Your task to perform on an android device: Open calendar and show me the fourth week of next month Image 0: 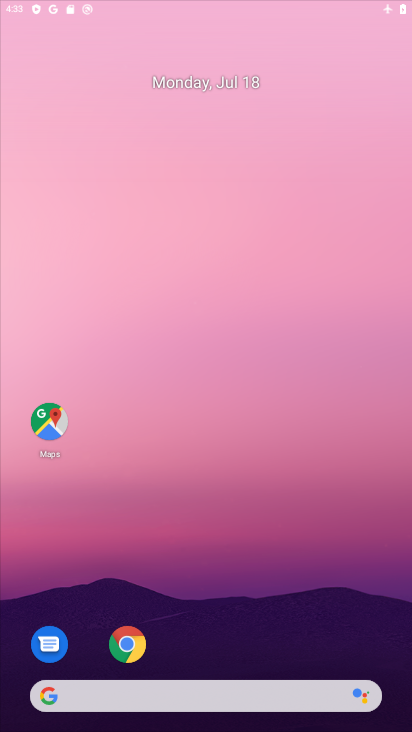
Step 0: press home button
Your task to perform on an android device: Open calendar and show me the fourth week of next month Image 1: 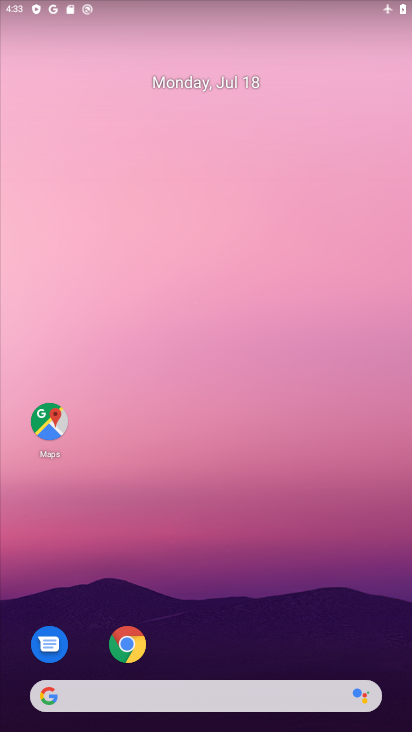
Step 1: drag from (279, 633) to (229, 1)
Your task to perform on an android device: Open calendar and show me the fourth week of next month Image 2: 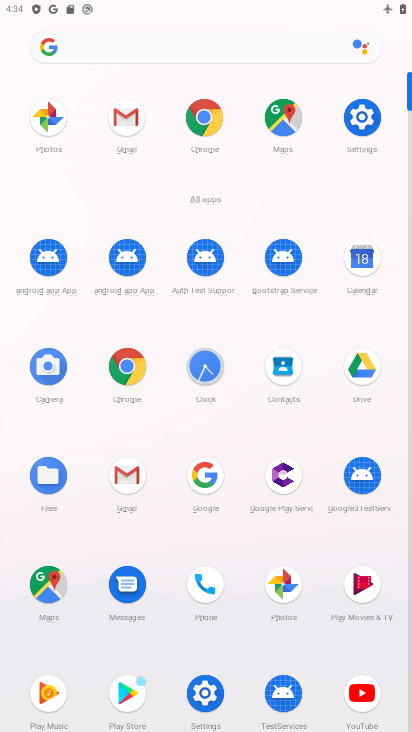
Step 2: click (355, 263)
Your task to perform on an android device: Open calendar and show me the fourth week of next month Image 3: 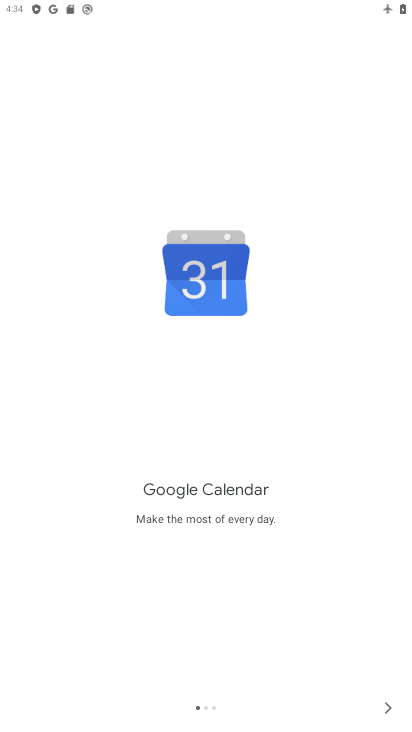
Step 3: click (386, 709)
Your task to perform on an android device: Open calendar and show me the fourth week of next month Image 4: 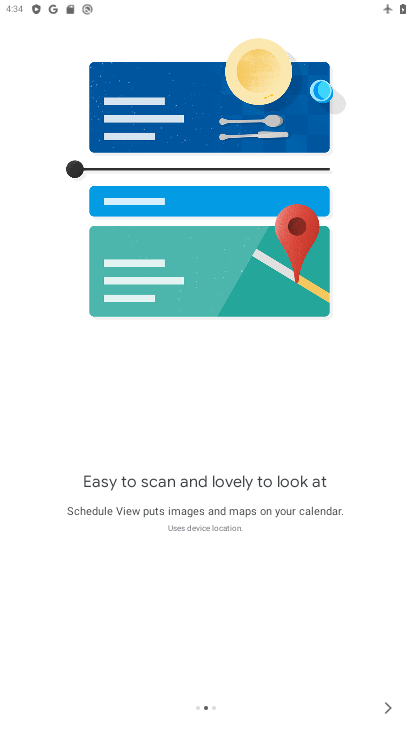
Step 4: click (389, 704)
Your task to perform on an android device: Open calendar and show me the fourth week of next month Image 5: 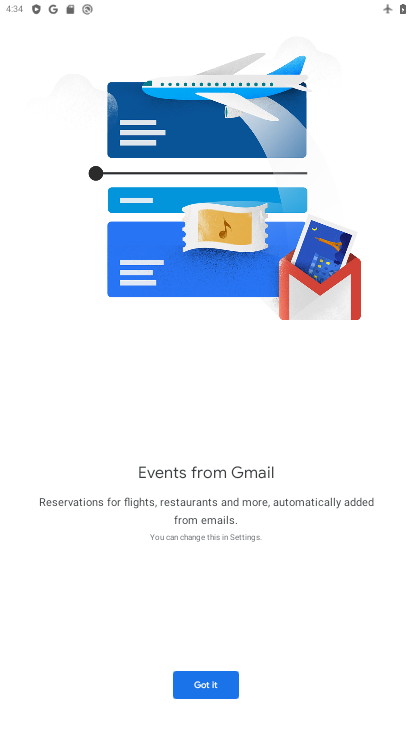
Step 5: click (206, 685)
Your task to perform on an android device: Open calendar and show me the fourth week of next month Image 6: 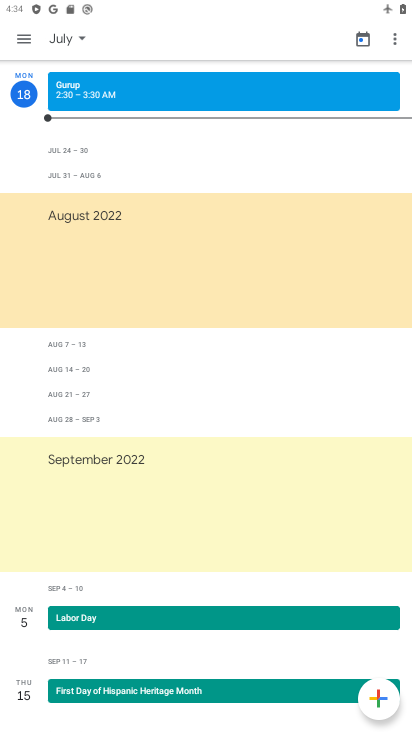
Step 6: click (86, 41)
Your task to perform on an android device: Open calendar and show me the fourth week of next month Image 7: 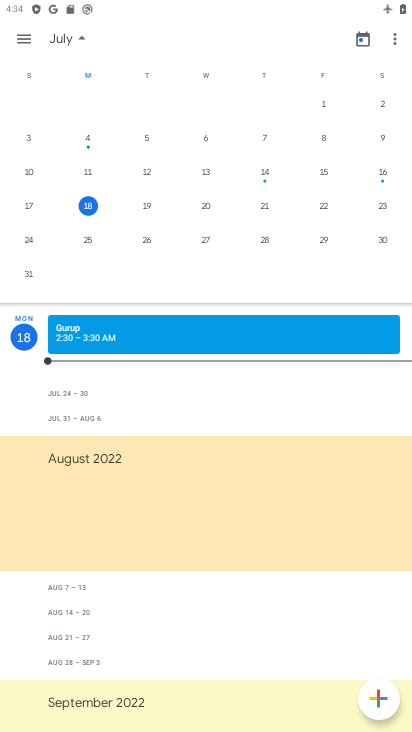
Step 7: drag from (305, 182) to (20, 158)
Your task to perform on an android device: Open calendar and show me the fourth week of next month Image 8: 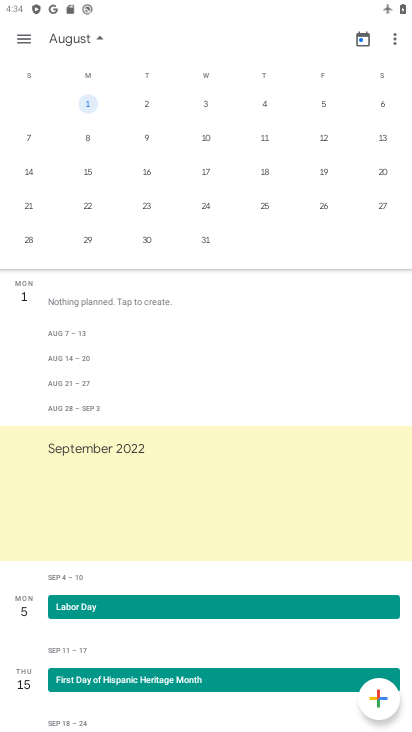
Step 8: click (261, 209)
Your task to perform on an android device: Open calendar and show me the fourth week of next month Image 9: 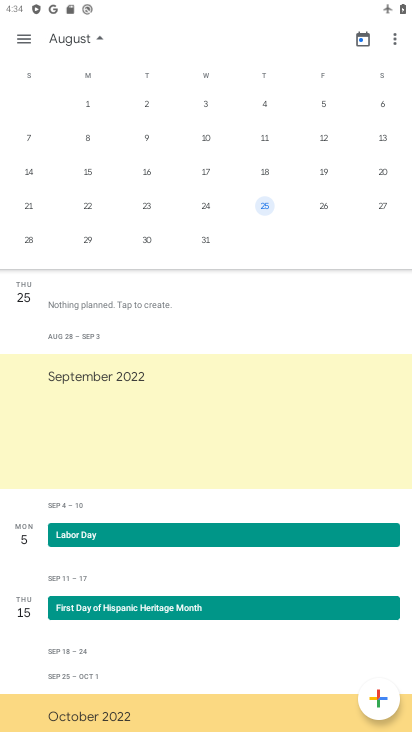
Step 9: click (318, 209)
Your task to perform on an android device: Open calendar and show me the fourth week of next month Image 10: 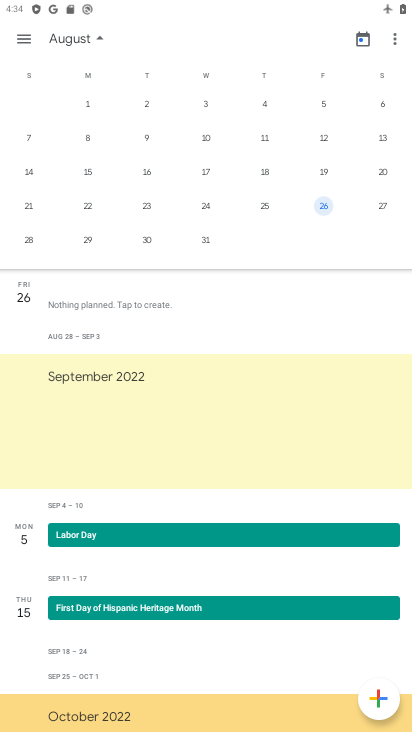
Step 10: click (383, 204)
Your task to perform on an android device: Open calendar and show me the fourth week of next month Image 11: 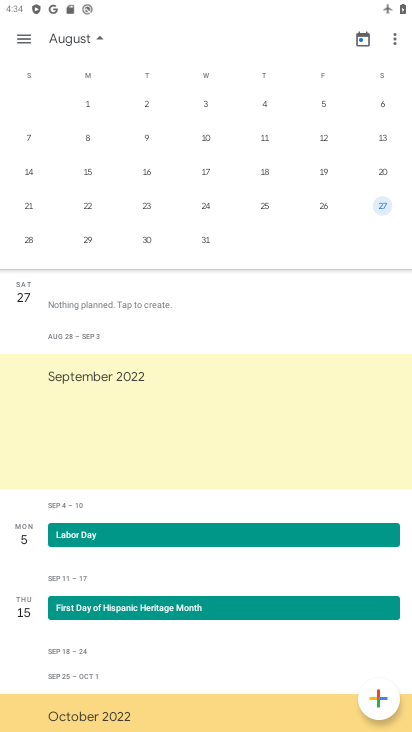
Step 11: click (26, 238)
Your task to perform on an android device: Open calendar and show me the fourth week of next month Image 12: 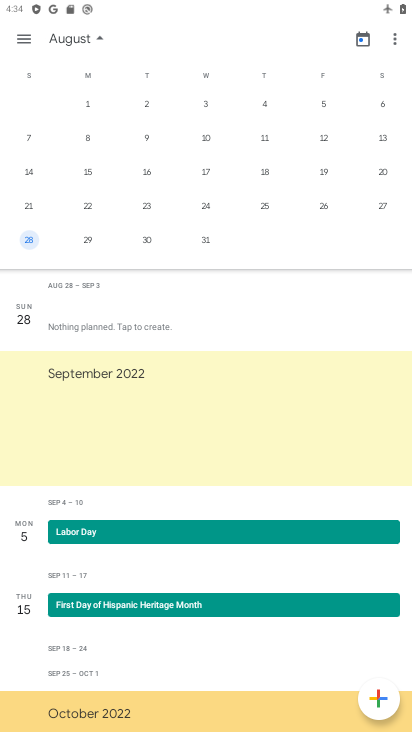
Step 12: click (94, 243)
Your task to perform on an android device: Open calendar and show me the fourth week of next month Image 13: 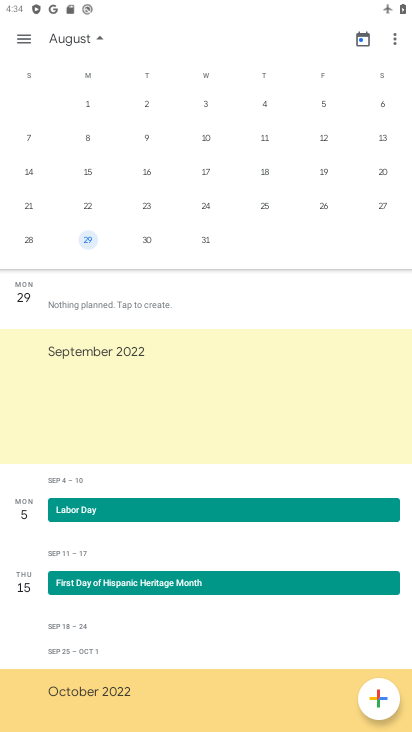
Step 13: click (150, 239)
Your task to perform on an android device: Open calendar and show me the fourth week of next month Image 14: 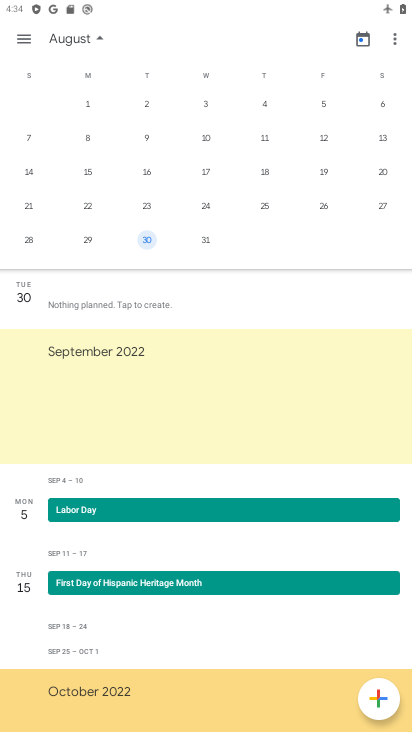
Step 14: click (205, 239)
Your task to perform on an android device: Open calendar and show me the fourth week of next month Image 15: 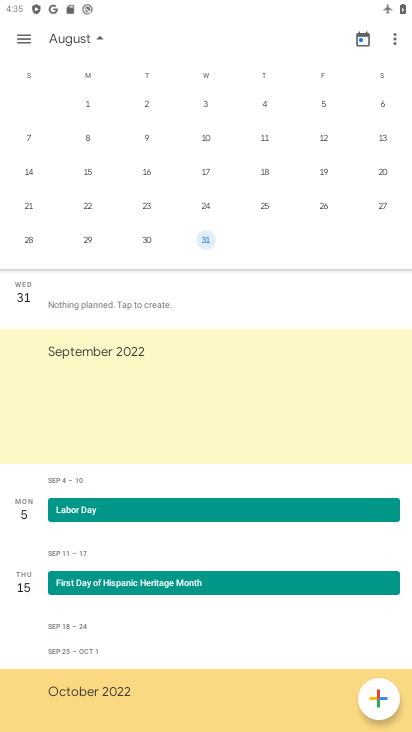
Step 15: task complete